Your task to perform on an android device: Go to Amazon Image 0: 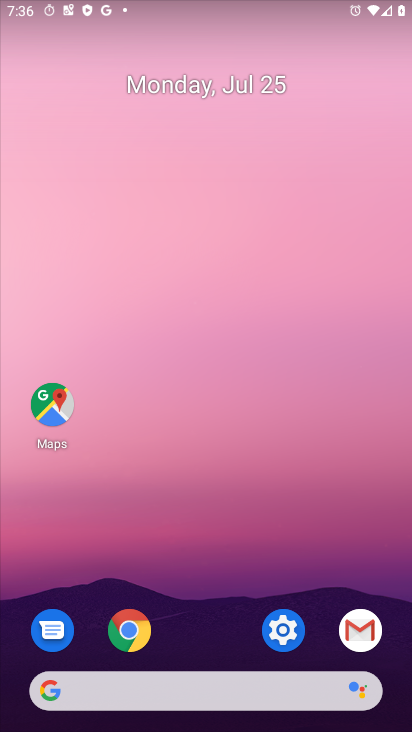
Step 0: click (140, 639)
Your task to perform on an android device: Go to Amazon Image 1: 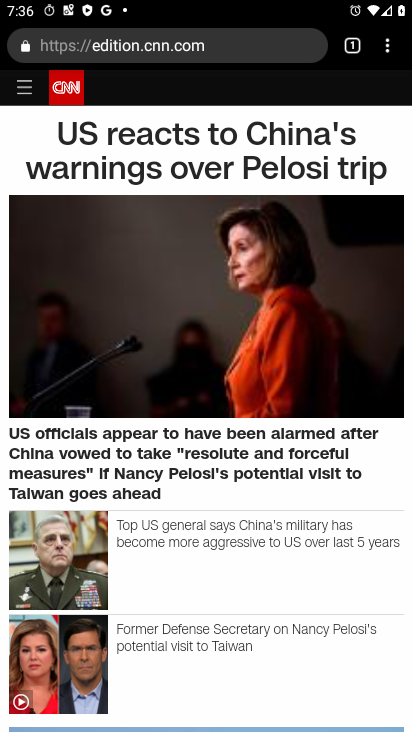
Step 1: click (353, 51)
Your task to perform on an android device: Go to Amazon Image 2: 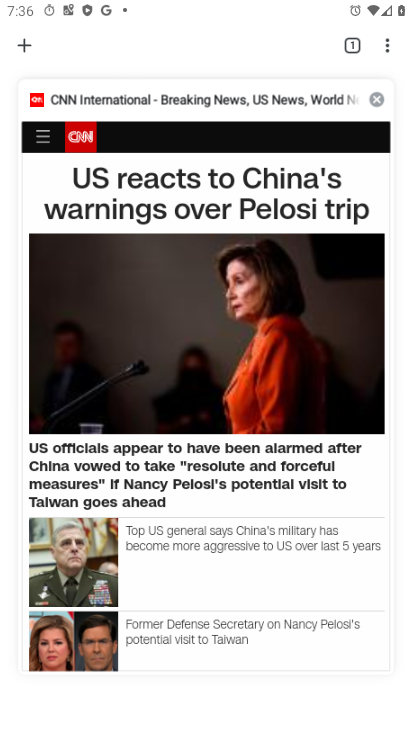
Step 2: click (24, 48)
Your task to perform on an android device: Go to Amazon Image 3: 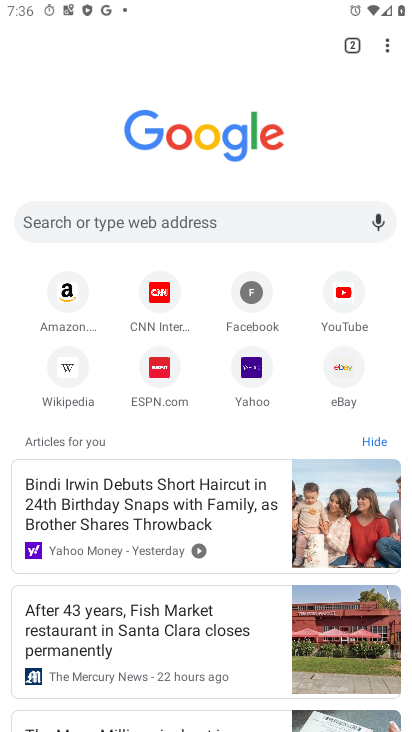
Step 3: click (71, 297)
Your task to perform on an android device: Go to Amazon Image 4: 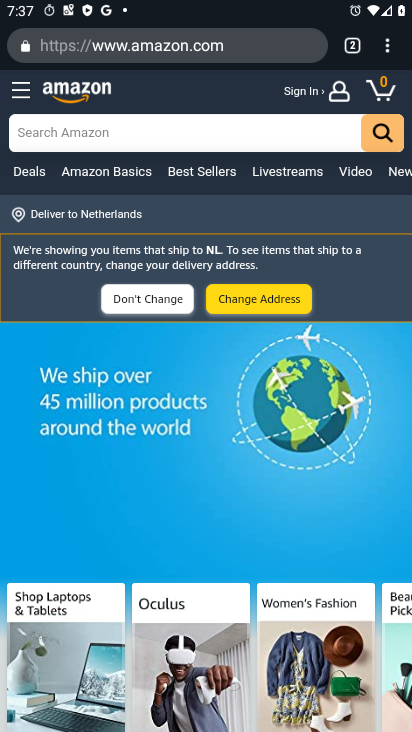
Step 4: task complete